Your task to perform on an android device: move an email to a new category in the gmail app Image 0: 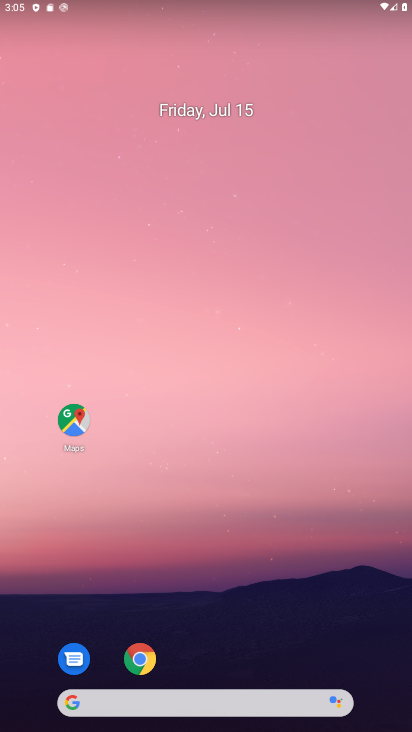
Step 0: drag from (181, 600) to (245, 156)
Your task to perform on an android device: move an email to a new category in the gmail app Image 1: 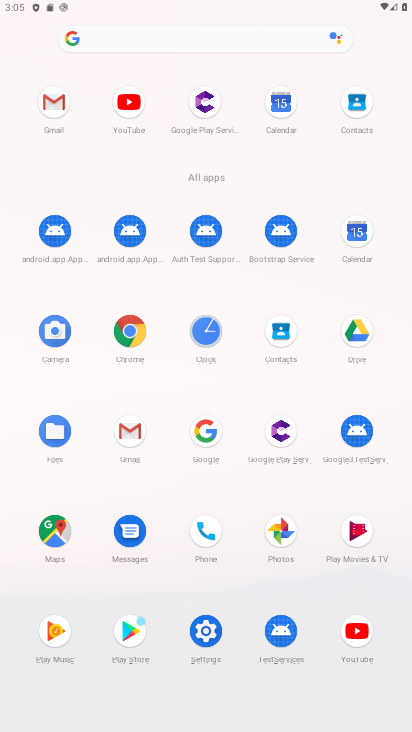
Step 1: click (131, 430)
Your task to perform on an android device: move an email to a new category in the gmail app Image 2: 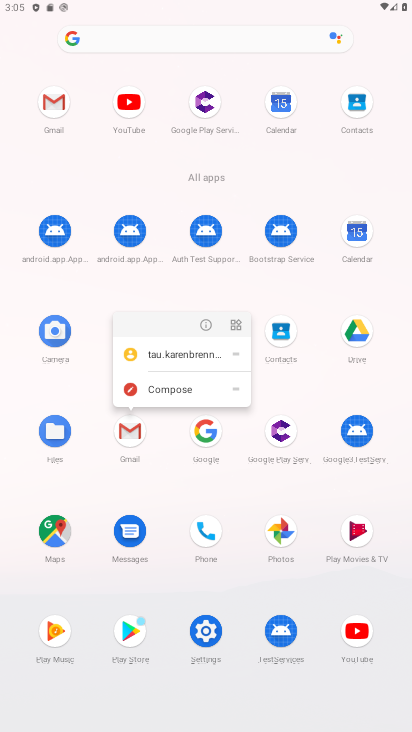
Step 2: click (208, 326)
Your task to perform on an android device: move an email to a new category in the gmail app Image 3: 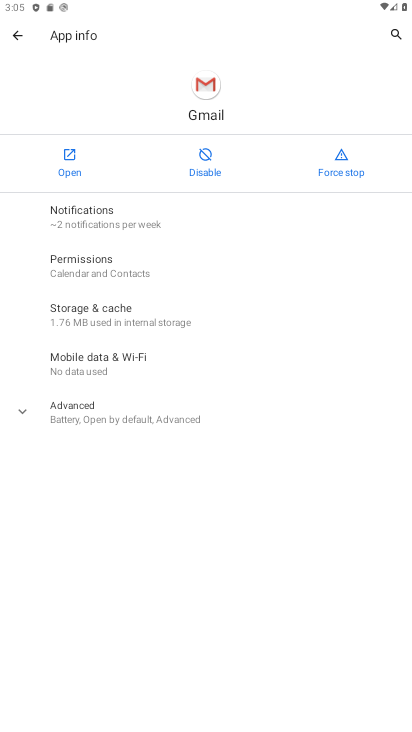
Step 3: click (69, 149)
Your task to perform on an android device: move an email to a new category in the gmail app Image 4: 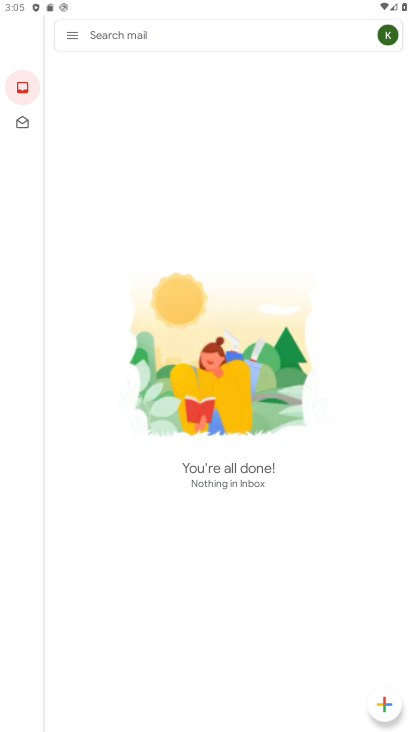
Step 4: task complete